Your task to perform on an android device: What's the weather today? Image 0: 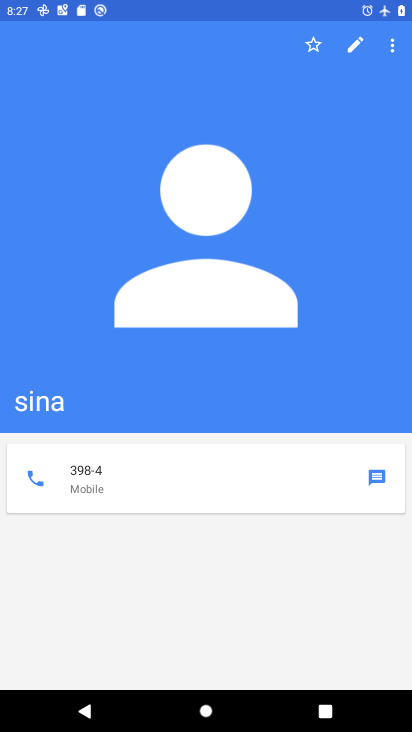
Step 0: press home button
Your task to perform on an android device: What's the weather today? Image 1: 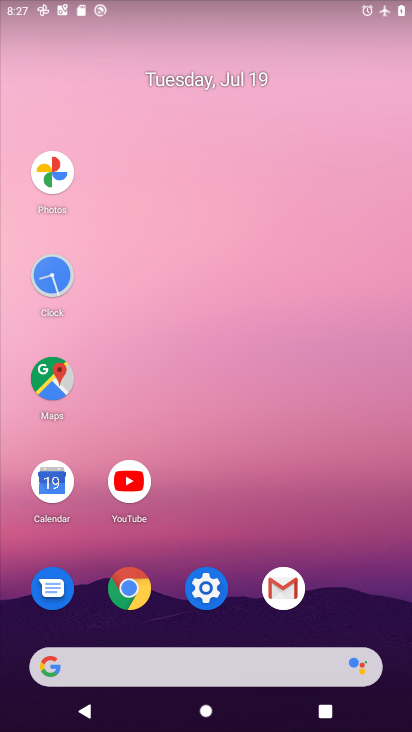
Step 1: click (217, 658)
Your task to perform on an android device: What's the weather today? Image 2: 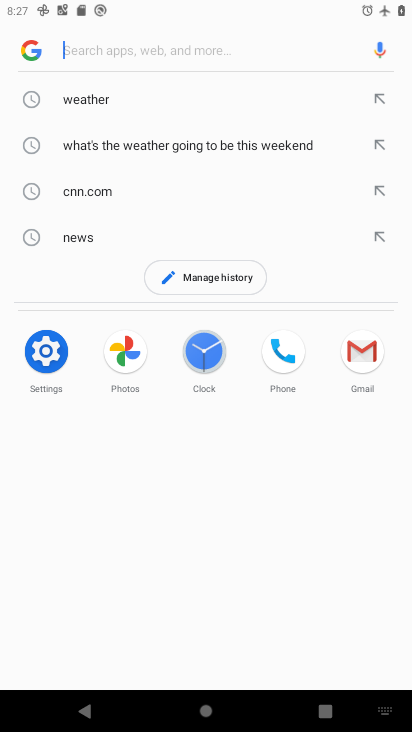
Step 2: click (85, 95)
Your task to perform on an android device: What's the weather today? Image 3: 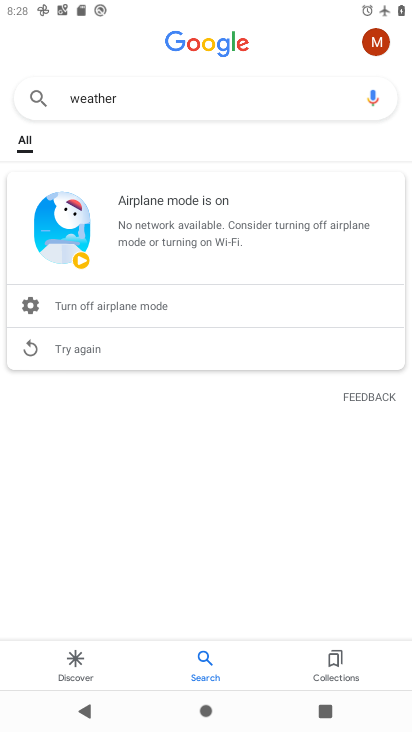
Step 3: task complete